Your task to perform on an android device: Open wifi settings Image 0: 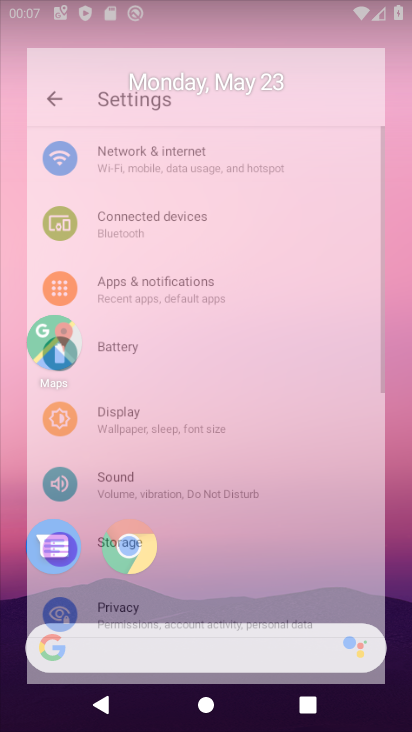
Step 0: drag from (211, 503) to (224, 4)
Your task to perform on an android device: Open wifi settings Image 1: 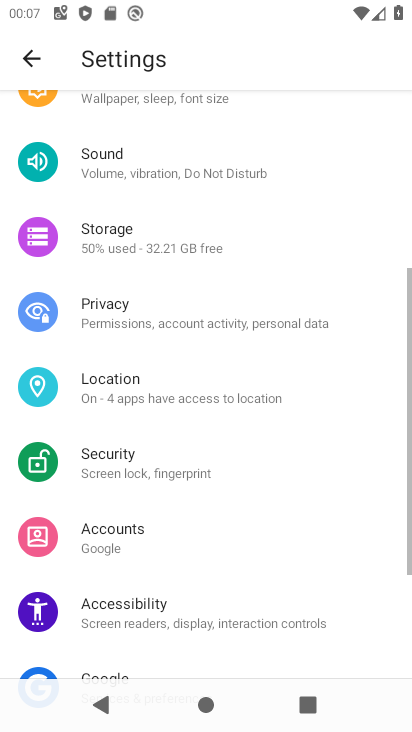
Step 1: drag from (175, 114) to (258, 591)
Your task to perform on an android device: Open wifi settings Image 2: 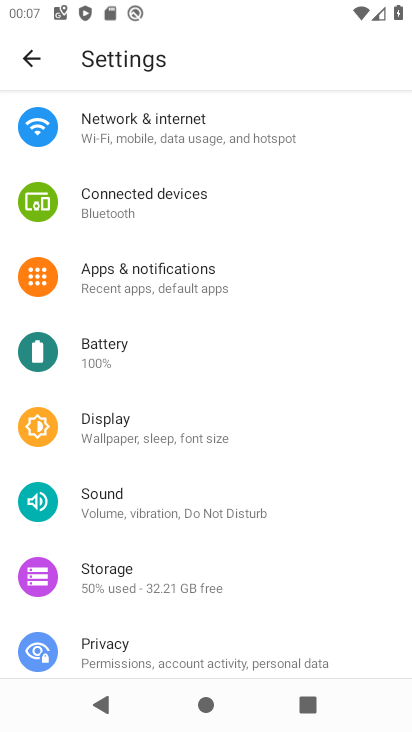
Step 2: drag from (239, 429) to (232, 57)
Your task to perform on an android device: Open wifi settings Image 3: 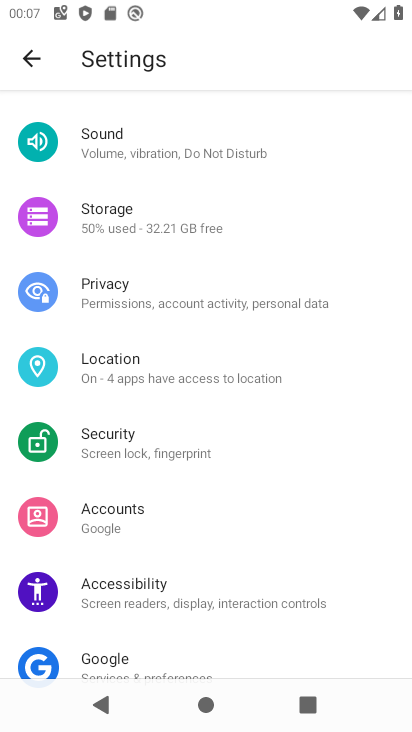
Step 3: drag from (227, 141) to (258, 722)
Your task to perform on an android device: Open wifi settings Image 4: 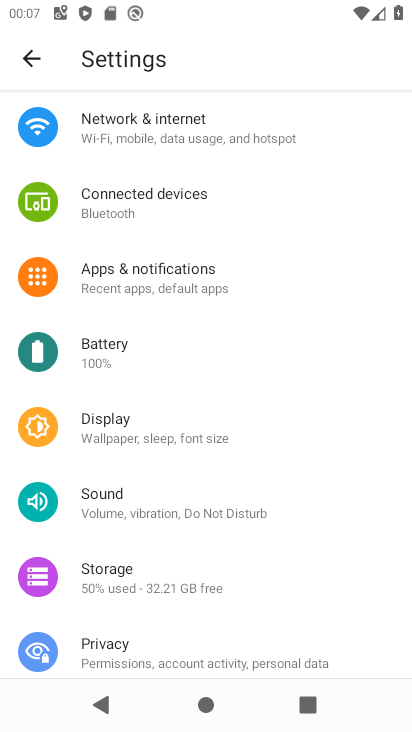
Step 4: drag from (224, 102) to (242, 726)
Your task to perform on an android device: Open wifi settings Image 5: 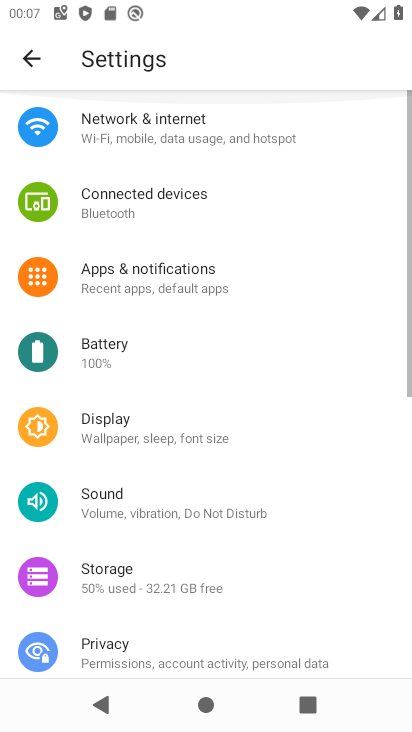
Step 5: drag from (222, 632) to (247, 154)
Your task to perform on an android device: Open wifi settings Image 6: 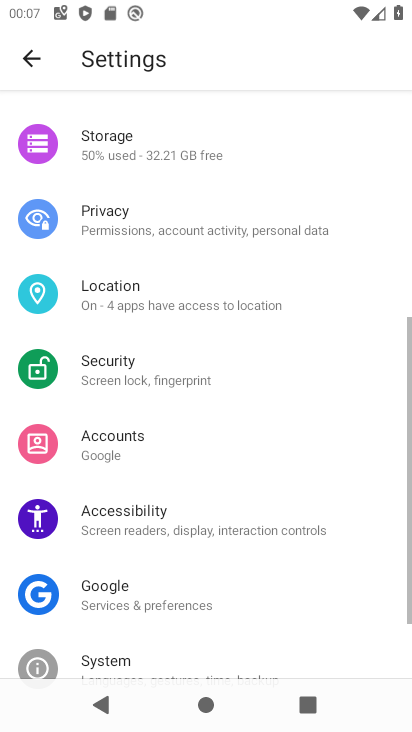
Step 6: drag from (246, 135) to (282, 669)
Your task to perform on an android device: Open wifi settings Image 7: 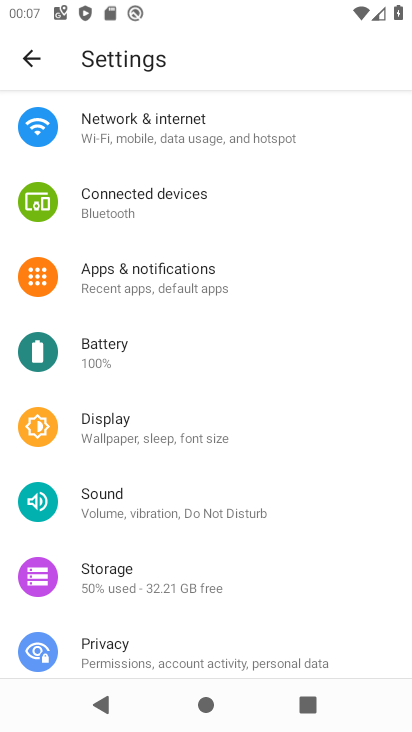
Step 7: drag from (215, 104) to (236, 510)
Your task to perform on an android device: Open wifi settings Image 8: 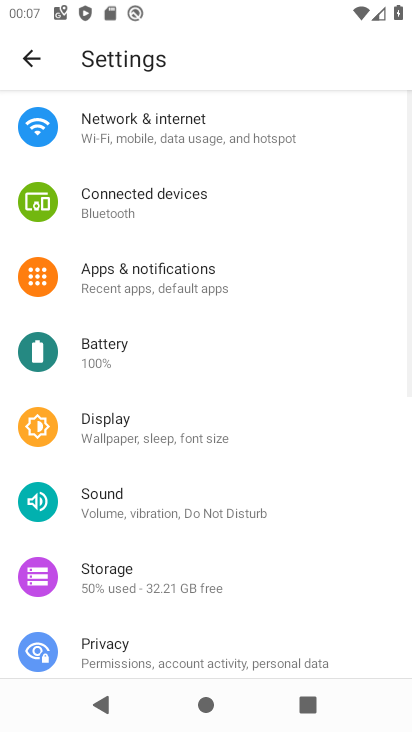
Step 8: drag from (222, 368) to (222, 92)
Your task to perform on an android device: Open wifi settings Image 9: 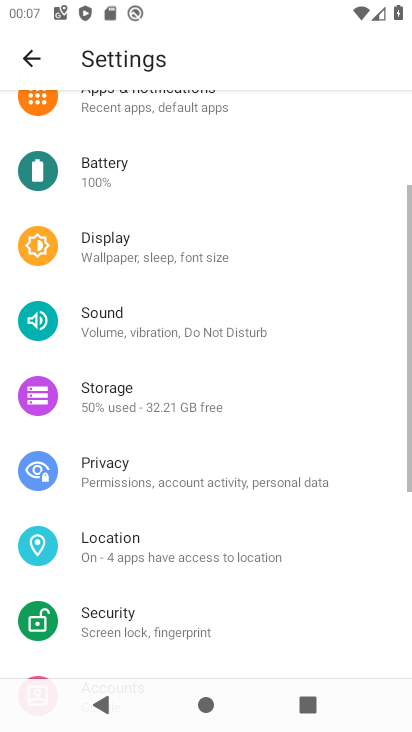
Step 9: drag from (221, 76) to (241, 677)
Your task to perform on an android device: Open wifi settings Image 10: 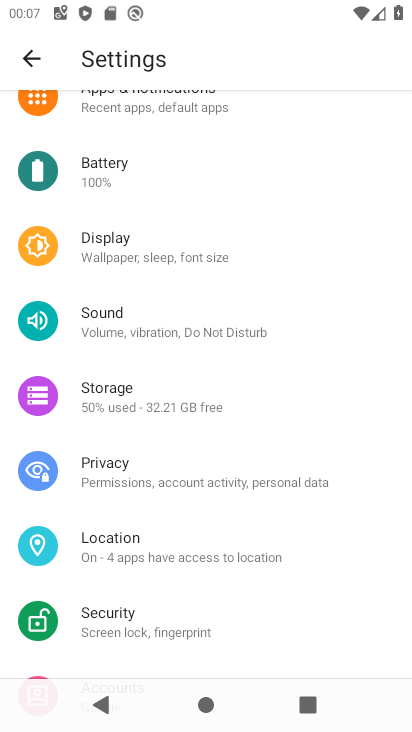
Step 10: drag from (233, 139) to (289, 695)
Your task to perform on an android device: Open wifi settings Image 11: 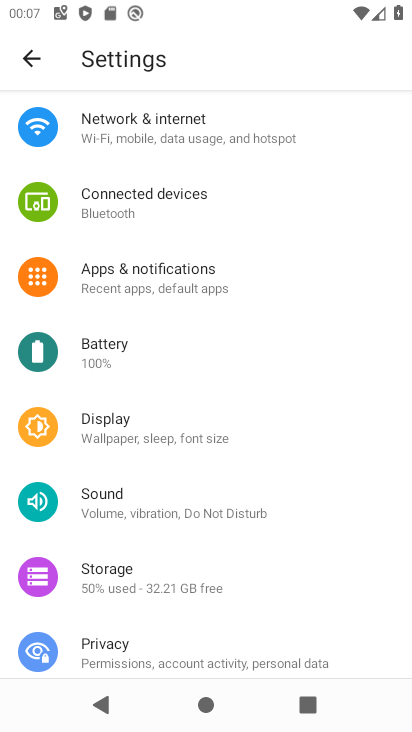
Step 11: click (195, 124)
Your task to perform on an android device: Open wifi settings Image 12: 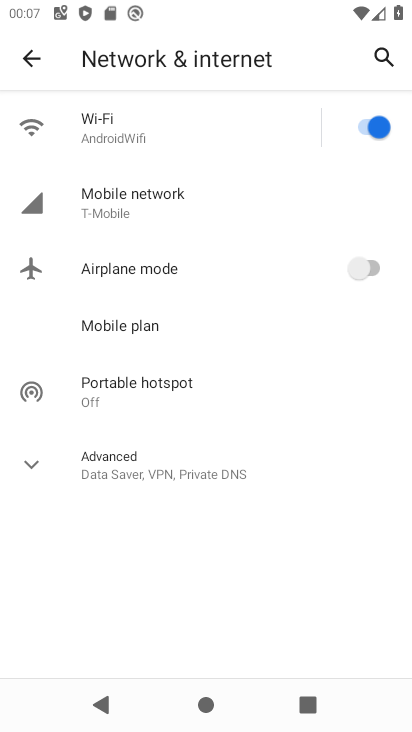
Step 12: click (218, 141)
Your task to perform on an android device: Open wifi settings Image 13: 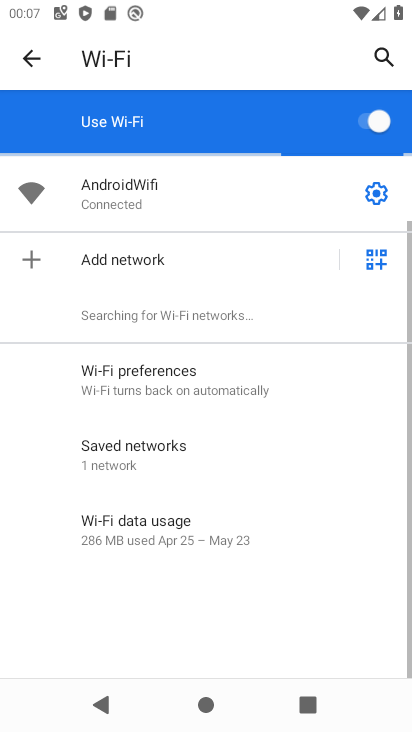
Step 13: task complete